Your task to perform on an android device: delete the emails in spam in the gmail app Image 0: 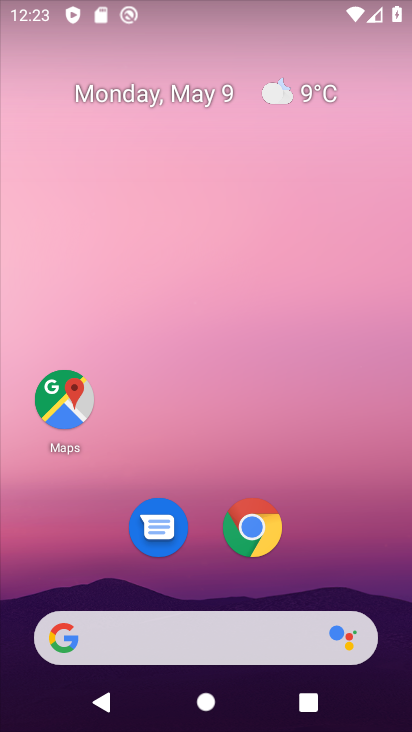
Step 0: drag from (234, 302) to (254, 4)
Your task to perform on an android device: delete the emails in spam in the gmail app Image 1: 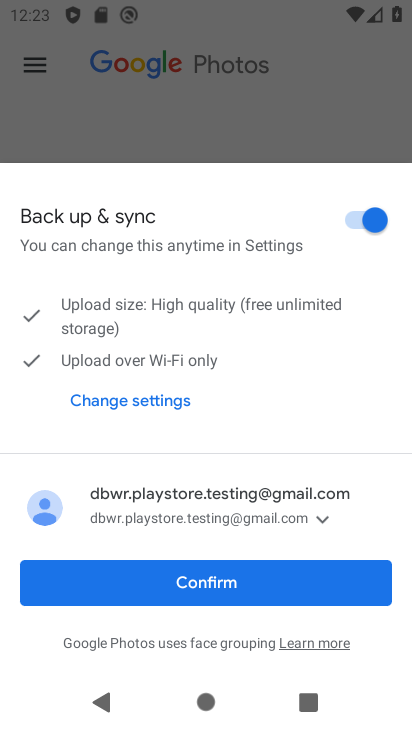
Step 1: press back button
Your task to perform on an android device: delete the emails in spam in the gmail app Image 2: 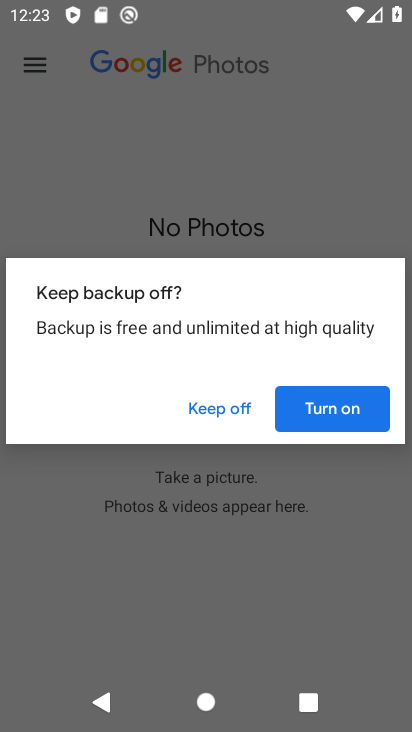
Step 2: press back button
Your task to perform on an android device: delete the emails in spam in the gmail app Image 3: 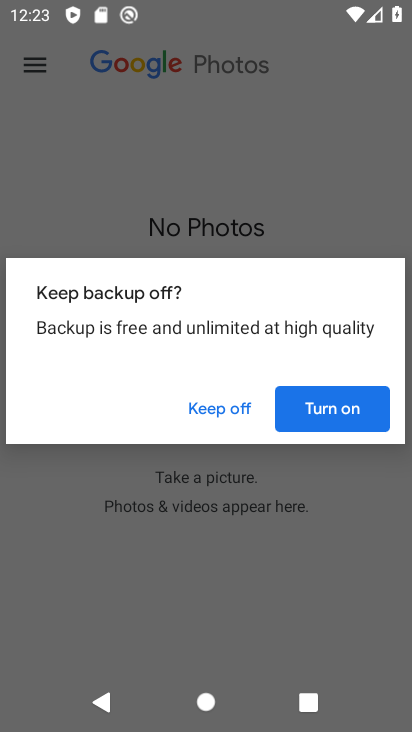
Step 3: press home button
Your task to perform on an android device: delete the emails in spam in the gmail app Image 4: 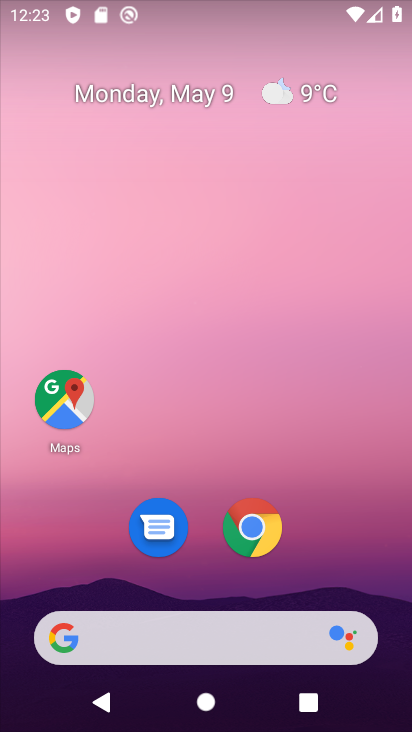
Step 4: drag from (220, 545) to (242, 7)
Your task to perform on an android device: delete the emails in spam in the gmail app Image 5: 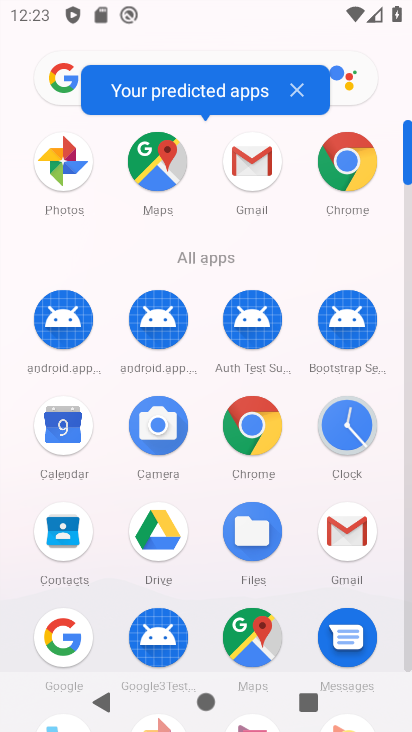
Step 5: click (250, 157)
Your task to perform on an android device: delete the emails in spam in the gmail app Image 6: 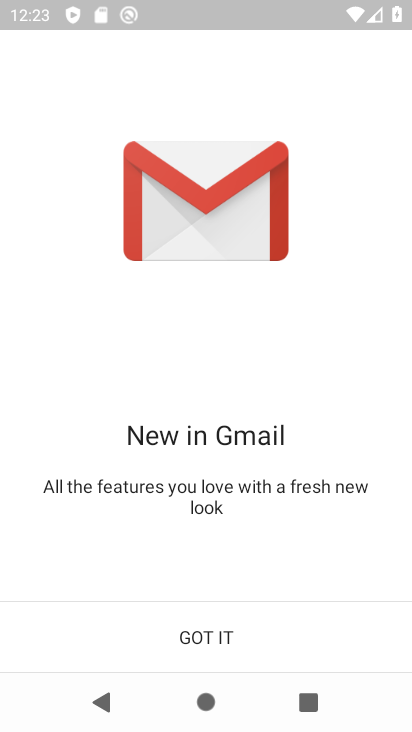
Step 6: click (211, 645)
Your task to perform on an android device: delete the emails in spam in the gmail app Image 7: 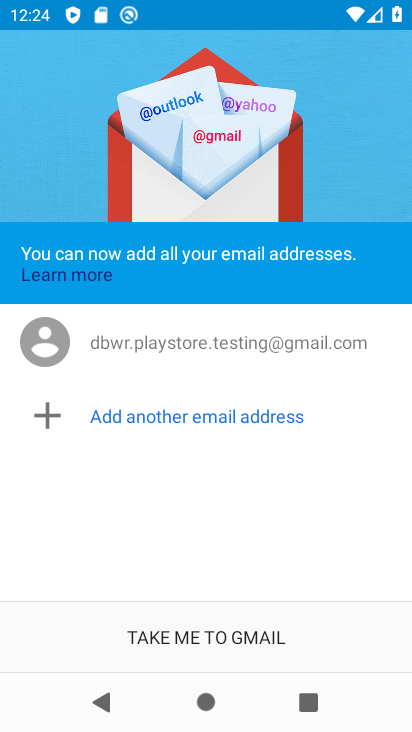
Step 7: click (189, 636)
Your task to perform on an android device: delete the emails in spam in the gmail app Image 8: 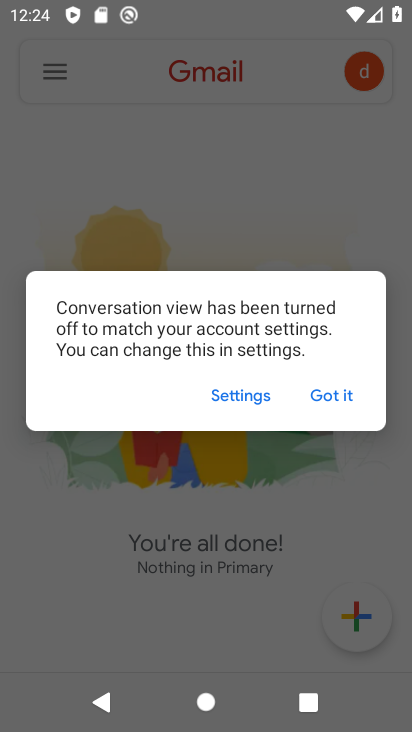
Step 8: click (335, 400)
Your task to perform on an android device: delete the emails in spam in the gmail app Image 9: 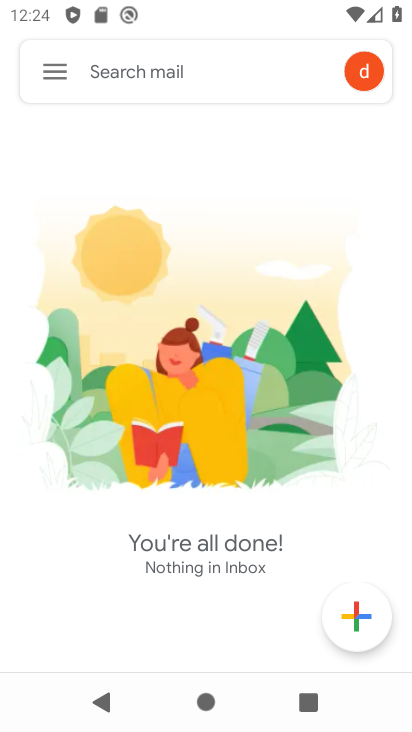
Step 9: click (53, 71)
Your task to perform on an android device: delete the emails in spam in the gmail app Image 10: 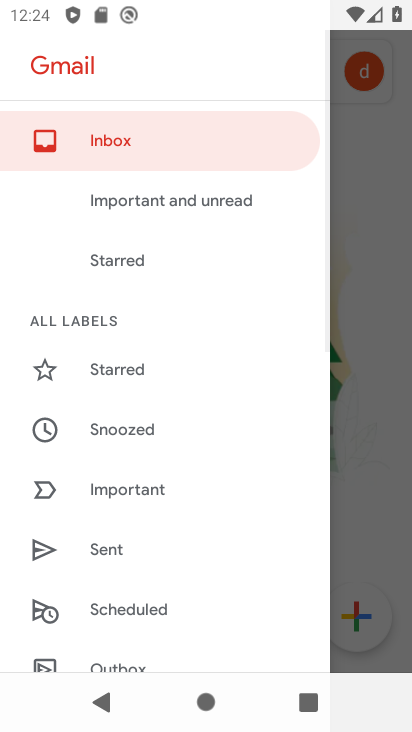
Step 10: drag from (137, 615) to (182, 144)
Your task to perform on an android device: delete the emails in spam in the gmail app Image 11: 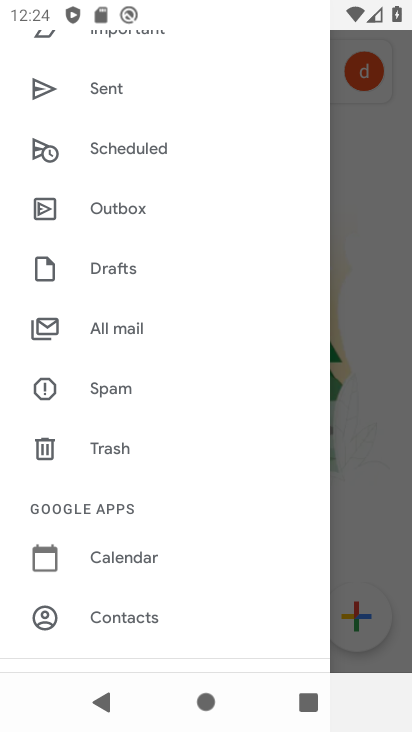
Step 11: click (108, 392)
Your task to perform on an android device: delete the emails in spam in the gmail app Image 12: 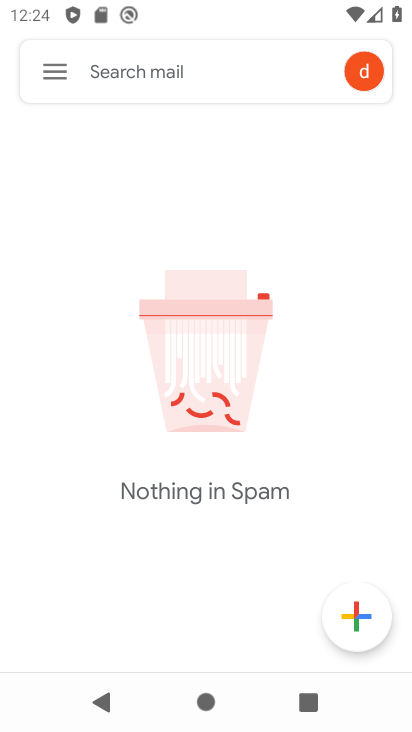
Step 12: task complete